Your task to perform on an android device: toggle notifications settings in the gmail app Image 0: 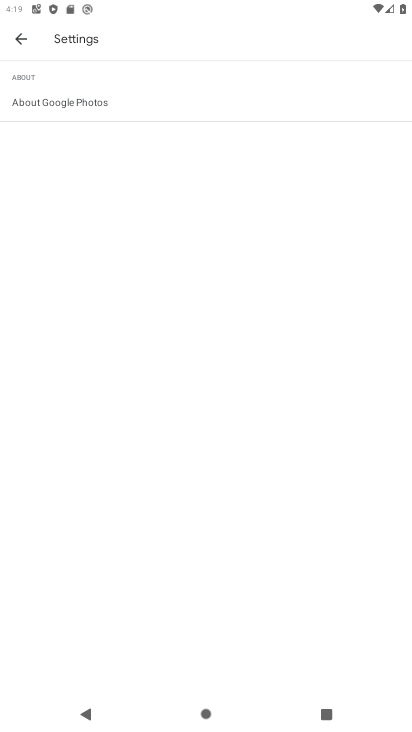
Step 0: press home button
Your task to perform on an android device: toggle notifications settings in the gmail app Image 1: 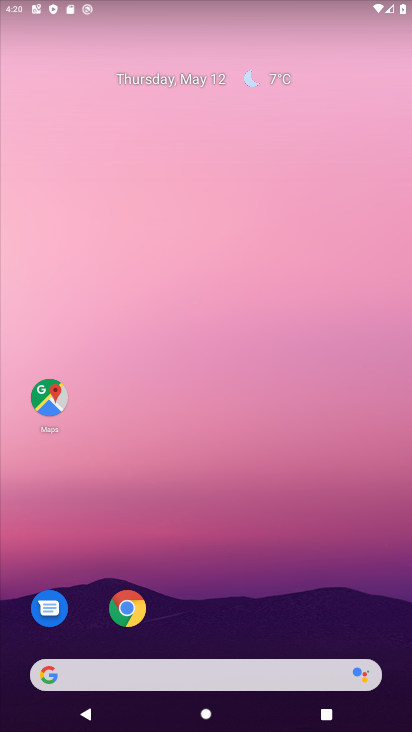
Step 1: click (195, 32)
Your task to perform on an android device: toggle notifications settings in the gmail app Image 2: 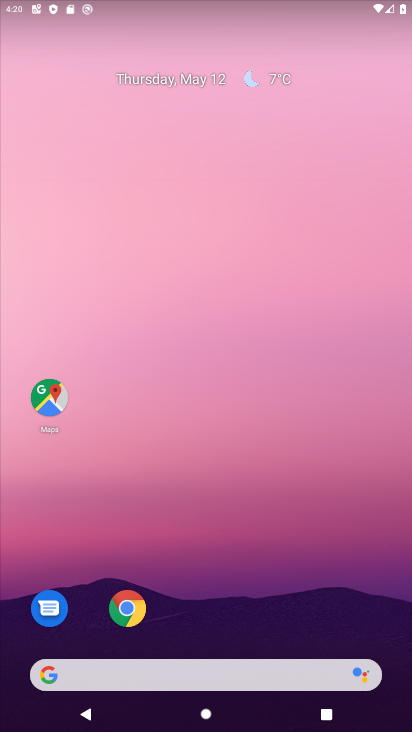
Step 2: drag from (151, 630) to (317, 47)
Your task to perform on an android device: toggle notifications settings in the gmail app Image 3: 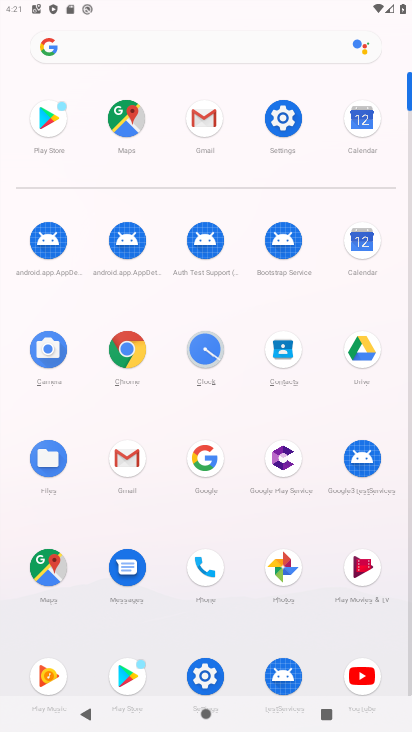
Step 3: click (205, 666)
Your task to perform on an android device: toggle notifications settings in the gmail app Image 4: 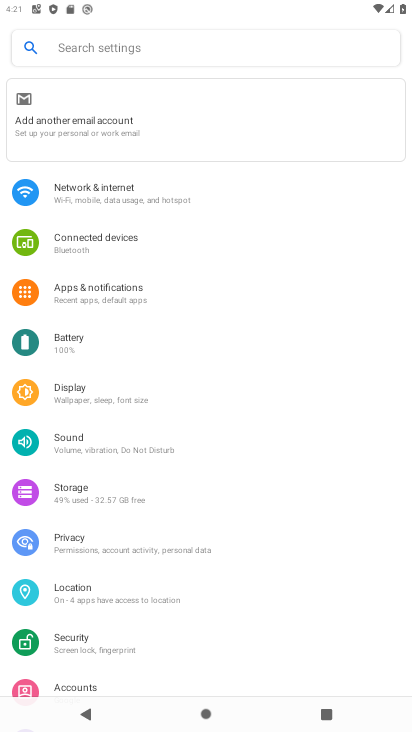
Step 4: click (96, 281)
Your task to perform on an android device: toggle notifications settings in the gmail app Image 5: 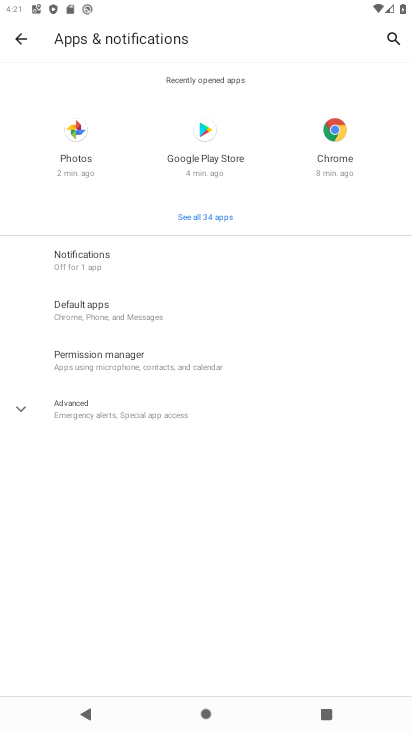
Step 5: click (127, 267)
Your task to perform on an android device: toggle notifications settings in the gmail app Image 6: 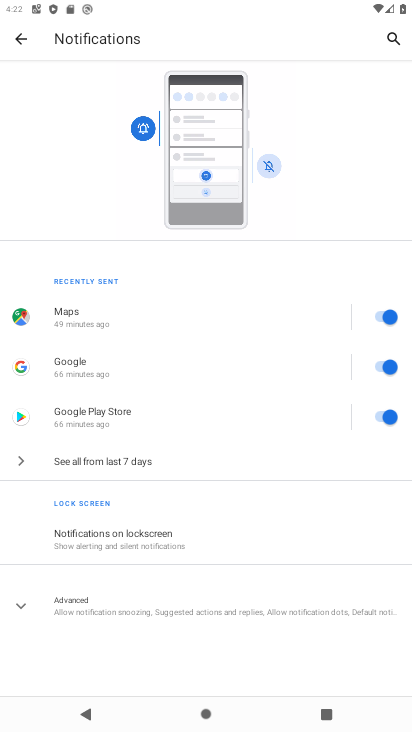
Step 6: click (108, 576)
Your task to perform on an android device: toggle notifications settings in the gmail app Image 7: 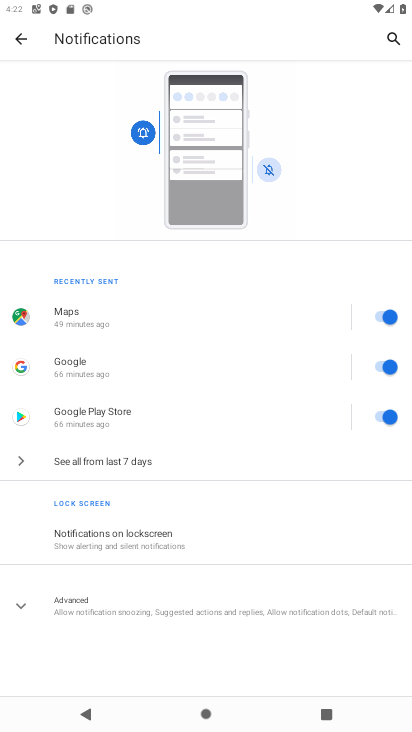
Step 7: click (103, 549)
Your task to perform on an android device: toggle notifications settings in the gmail app Image 8: 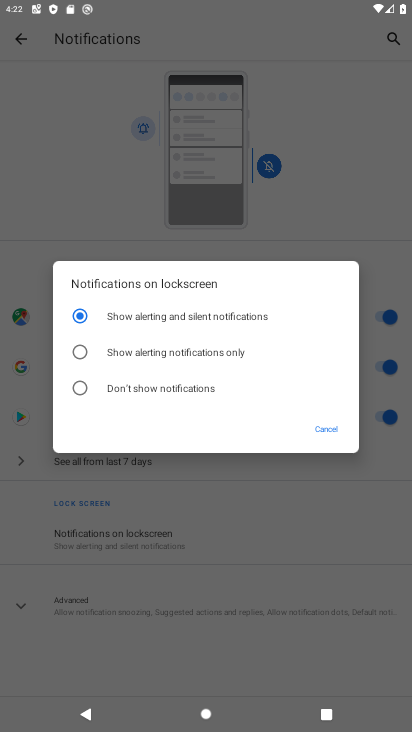
Step 8: click (87, 361)
Your task to perform on an android device: toggle notifications settings in the gmail app Image 9: 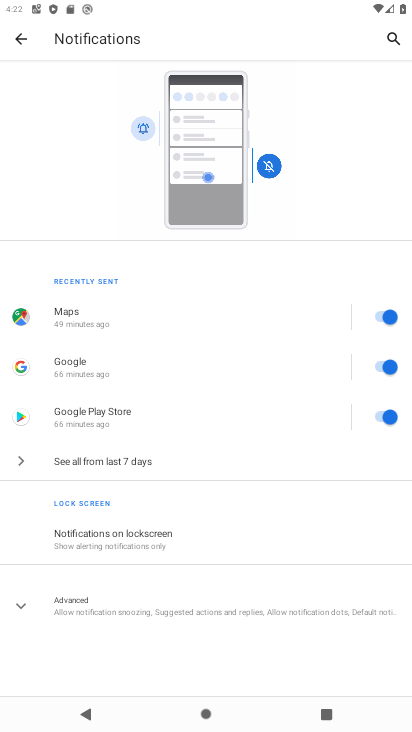
Step 9: task complete